Your task to perform on an android device: star an email in the gmail app Image 0: 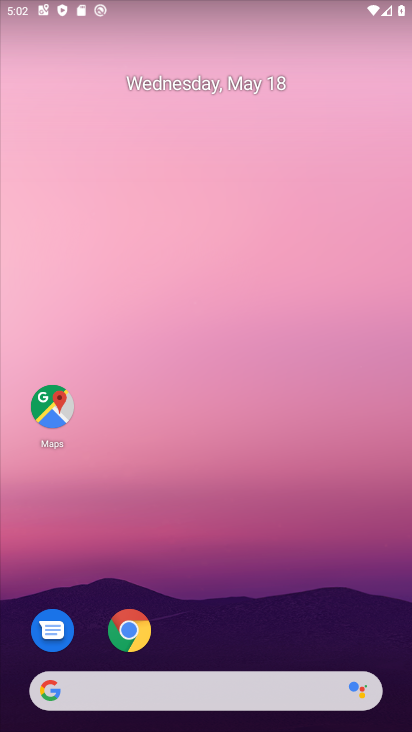
Step 0: drag from (238, 678) to (199, 257)
Your task to perform on an android device: star an email in the gmail app Image 1: 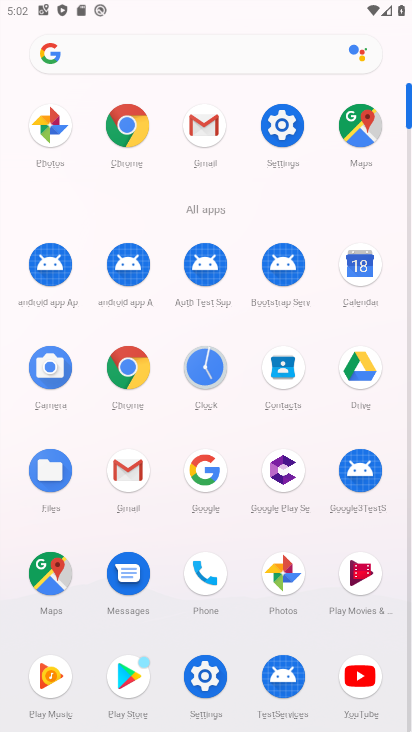
Step 1: click (190, 136)
Your task to perform on an android device: star an email in the gmail app Image 2: 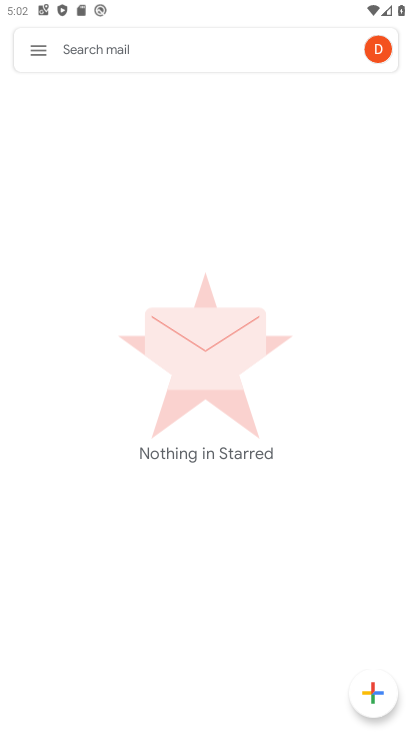
Step 2: click (35, 53)
Your task to perform on an android device: star an email in the gmail app Image 3: 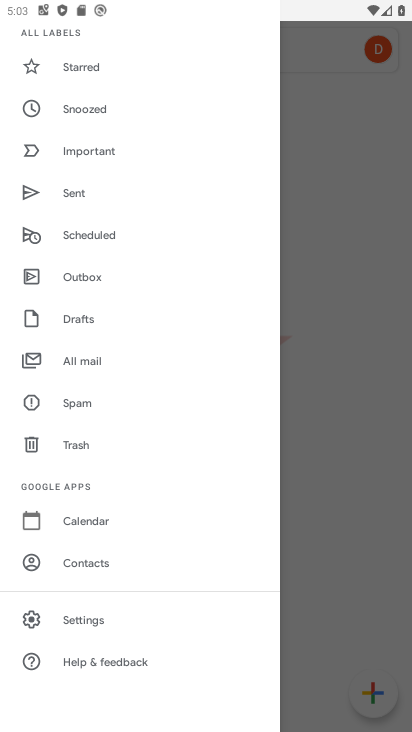
Step 3: drag from (94, 70) to (191, 406)
Your task to perform on an android device: star an email in the gmail app Image 4: 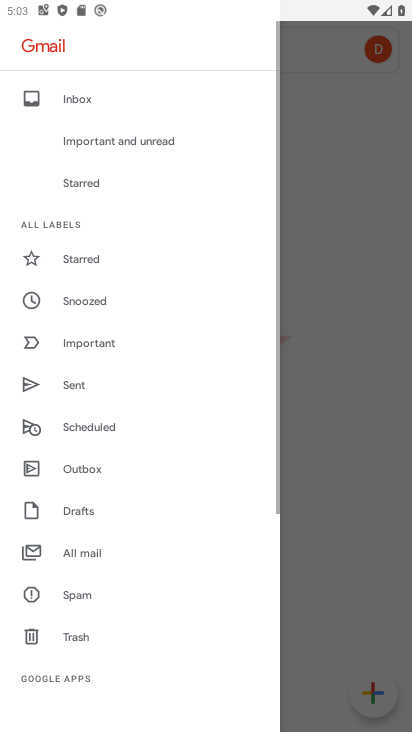
Step 4: click (53, 99)
Your task to perform on an android device: star an email in the gmail app Image 5: 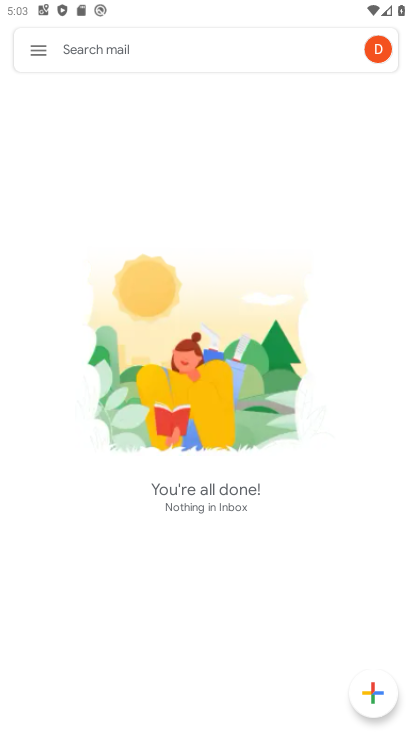
Step 5: click (45, 44)
Your task to perform on an android device: star an email in the gmail app Image 6: 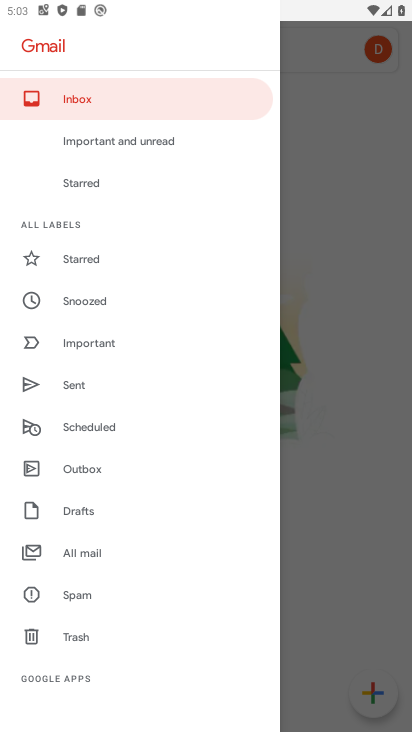
Step 6: click (78, 102)
Your task to perform on an android device: star an email in the gmail app Image 7: 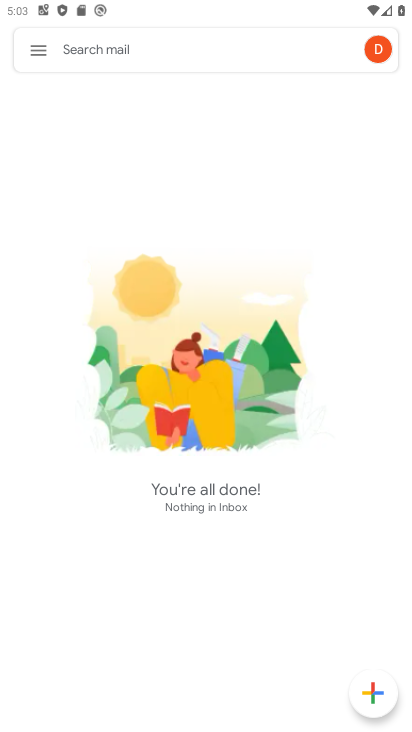
Step 7: task complete